Your task to perform on an android device: What's the weather going to be this weekend? Image 0: 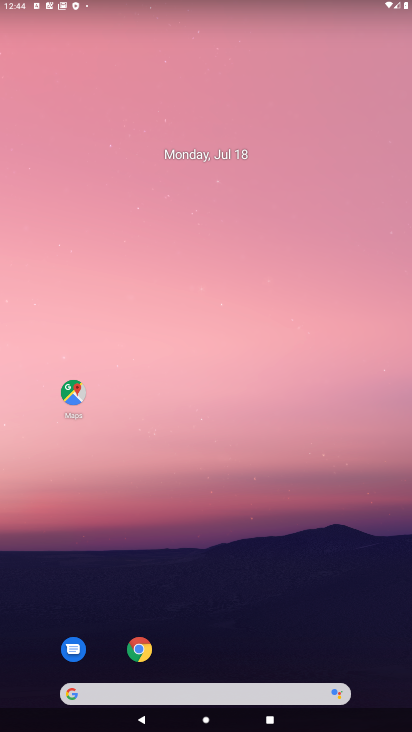
Step 0: drag from (4, 226) to (394, 246)
Your task to perform on an android device: What's the weather going to be this weekend? Image 1: 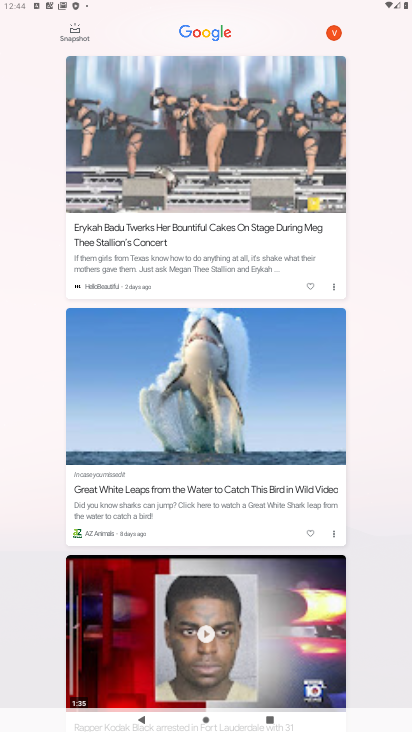
Step 1: drag from (220, 168) to (222, 416)
Your task to perform on an android device: What's the weather going to be this weekend? Image 2: 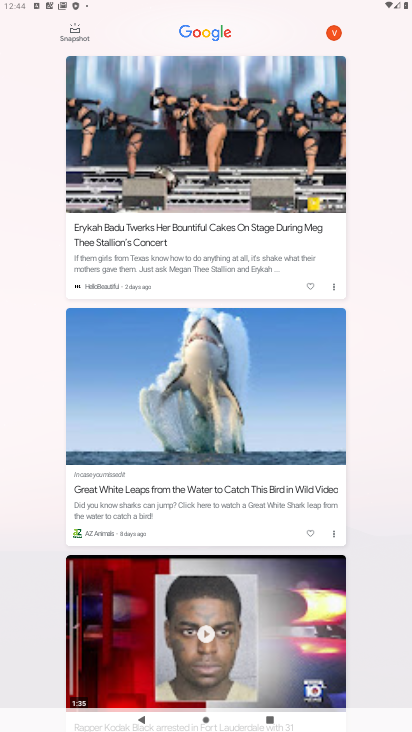
Step 2: drag from (405, 467) to (7, 426)
Your task to perform on an android device: What's the weather going to be this weekend? Image 3: 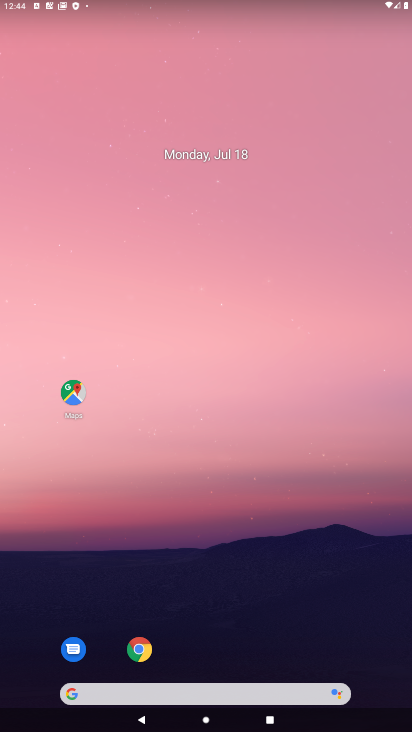
Step 3: click (119, 685)
Your task to perform on an android device: What's the weather going to be this weekend? Image 4: 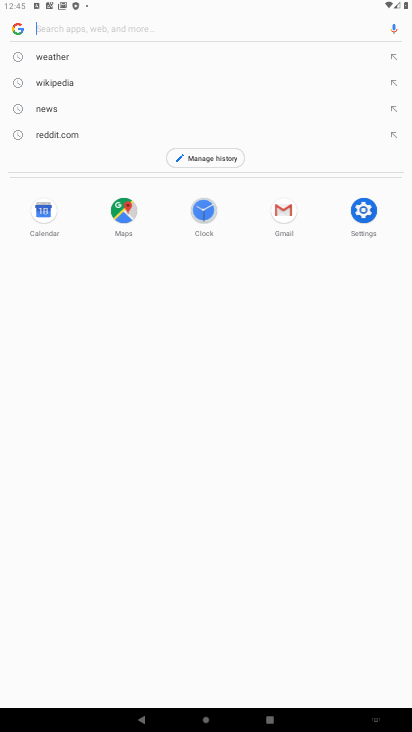
Step 4: click (52, 54)
Your task to perform on an android device: What's the weather going to be this weekend? Image 5: 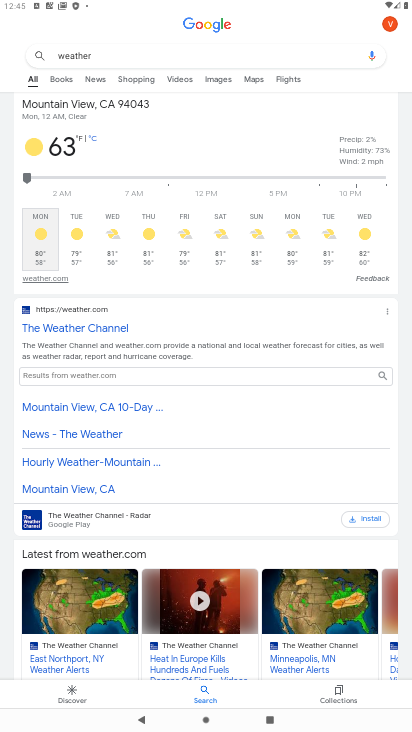
Step 5: task complete